Your task to perform on an android device: Open the stopwatch Image 0: 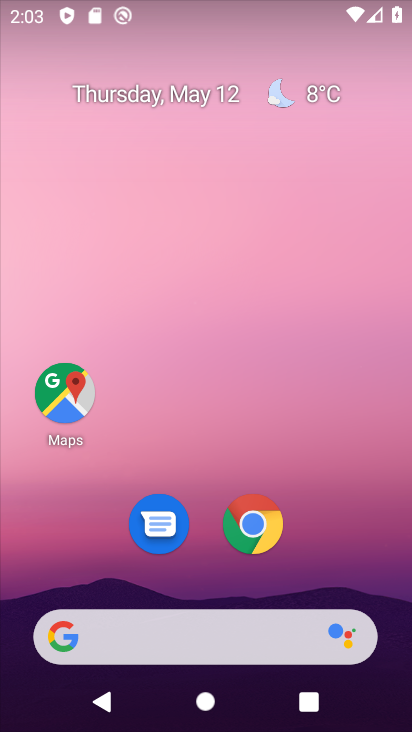
Step 0: drag from (221, 432) to (282, 25)
Your task to perform on an android device: Open the stopwatch Image 1: 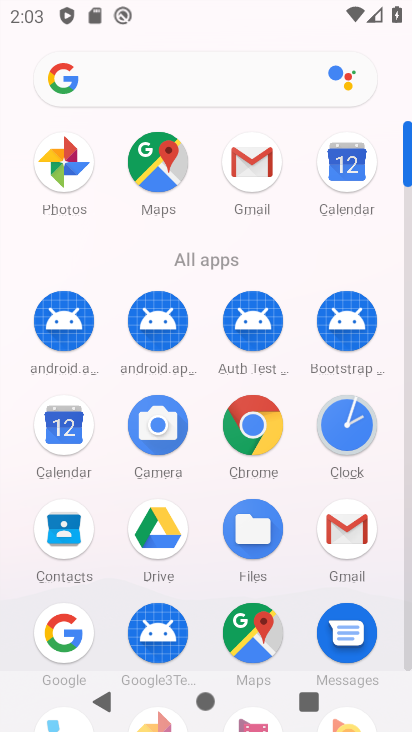
Step 1: click (352, 428)
Your task to perform on an android device: Open the stopwatch Image 2: 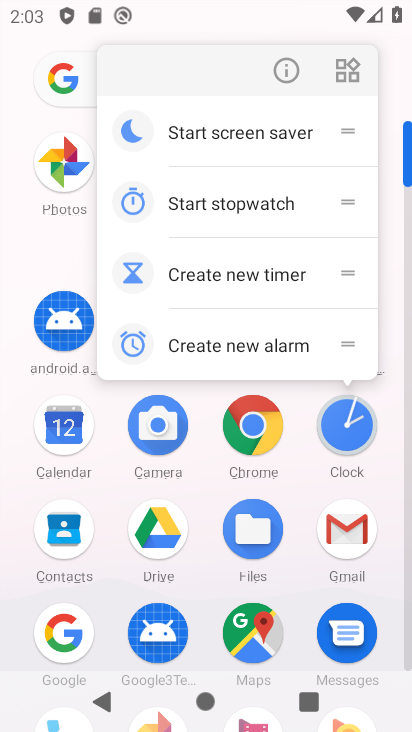
Step 2: click (352, 428)
Your task to perform on an android device: Open the stopwatch Image 3: 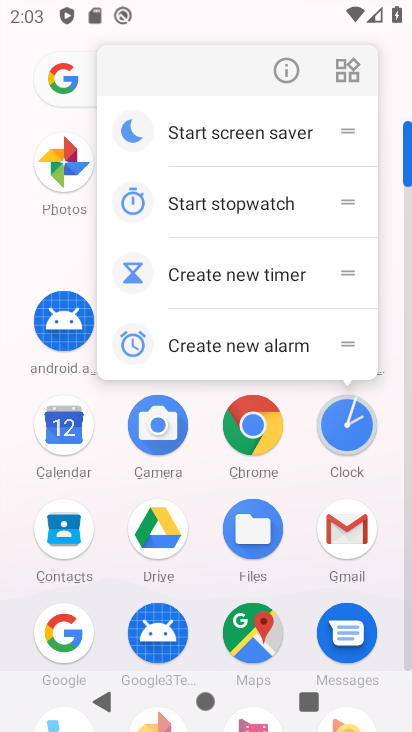
Step 3: click (341, 431)
Your task to perform on an android device: Open the stopwatch Image 4: 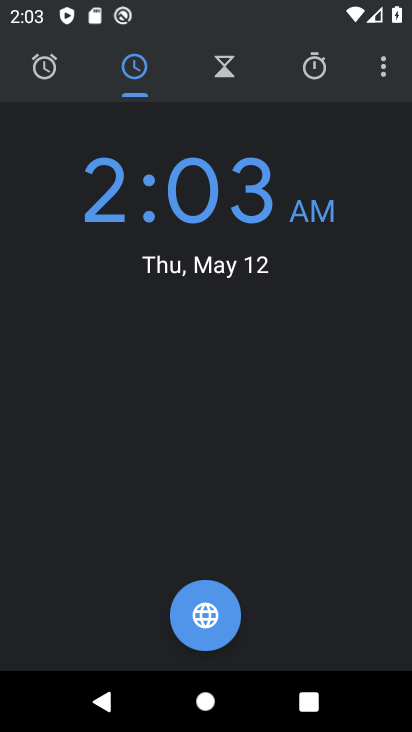
Step 4: click (320, 68)
Your task to perform on an android device: Open the stopwatch Image 5: 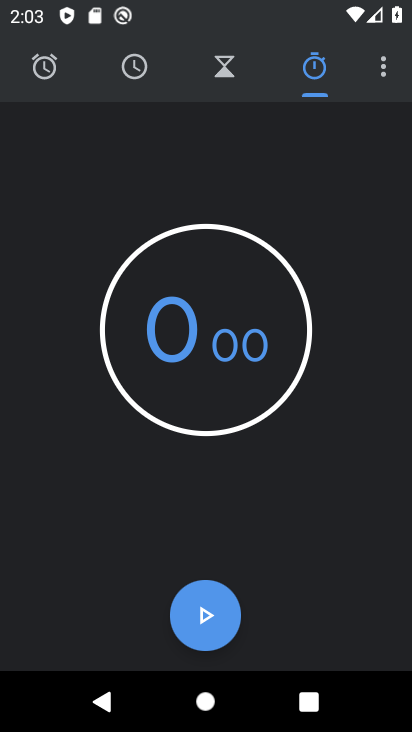
Step 5: task complete